Your task to perform on an android device: change the upload size in google photos Image 0: 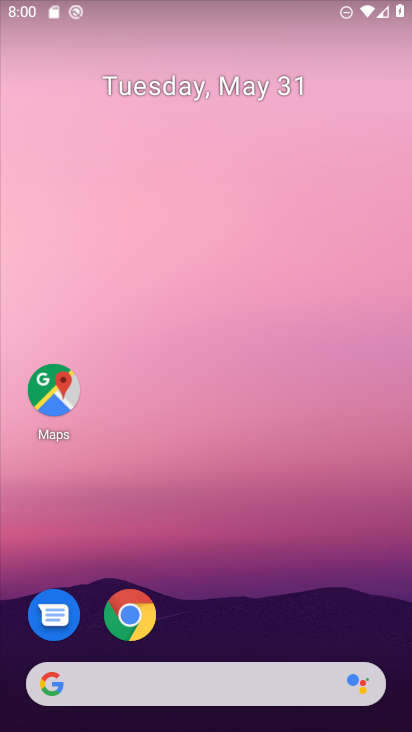
Step 0: drag from (280, 558) to (273, 0)
Your task to perform on an android device: change the upload size in google photos Image 1: 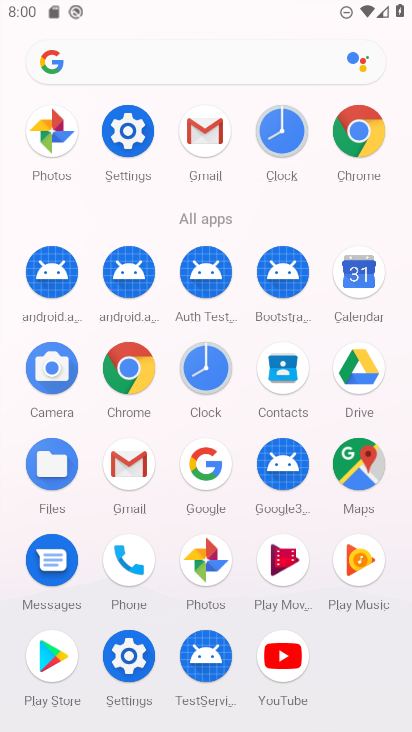
Step 1: click (203, 560)
Your task to perform on an android device: change the upload size in google photos Image 2: 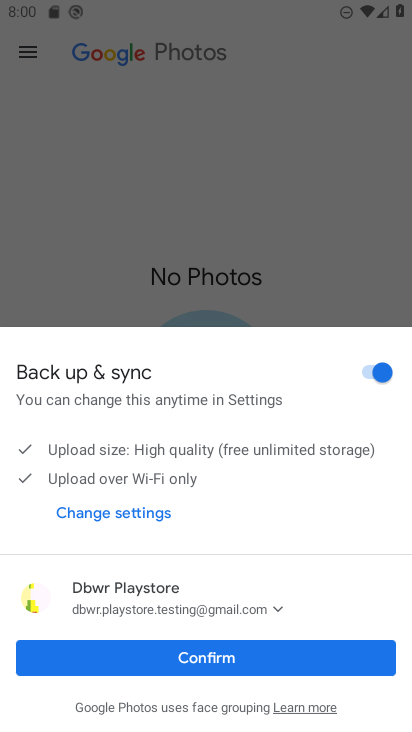
Step 2: click (202, 657)
Your task to perform on an android device: change the upload size in google photos Image 3: 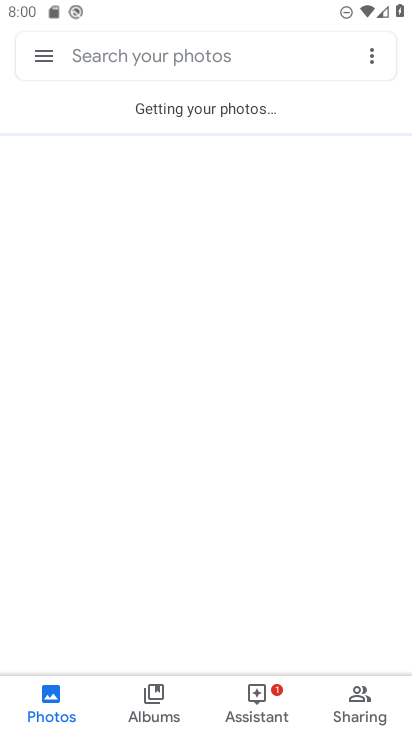
Step 3: click (50, 48)
Your task to perform on an android device: change the upload size in google photos Image 4: 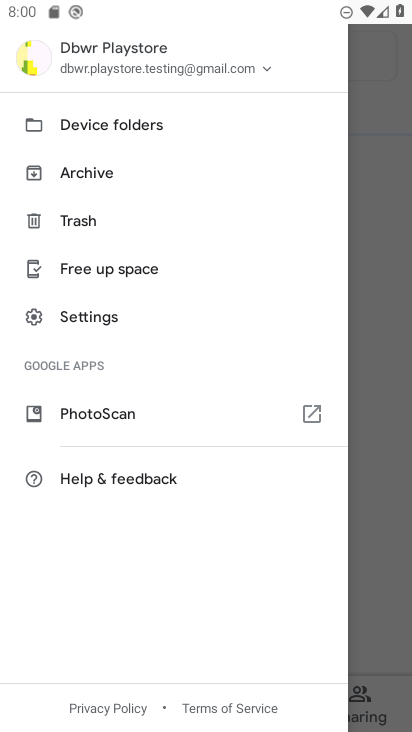
Step 4: click (105, 321)
Your task to perform on an android device: change the upload size in google photos Image 5: 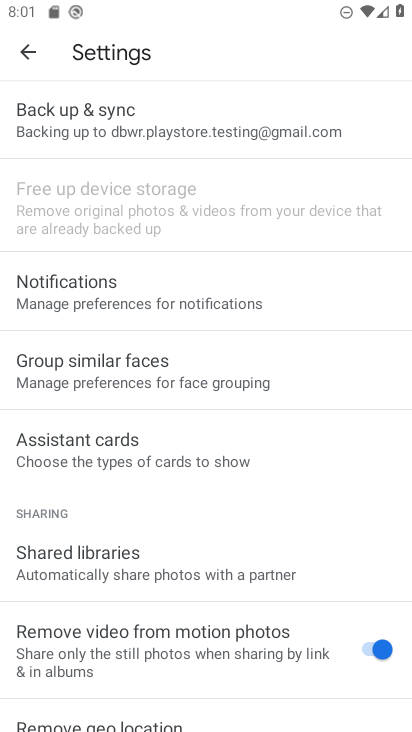
Step 5: click (96, 120)
Your task to perform on an android device: change the upload size in google photos Image 6: 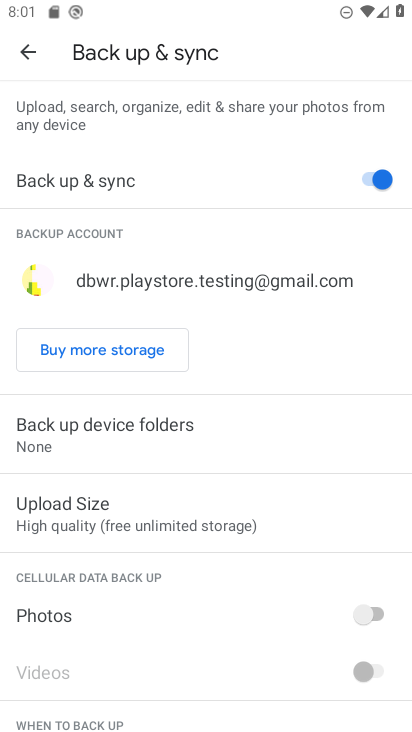
Step 6: click (191, 515)
Your task to perform on an android device: change the upload size in google photos Image 7: 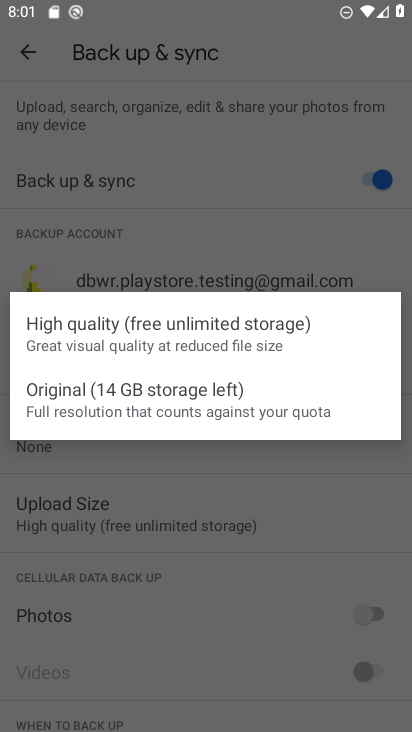
Step 7: click (156, 404)
Your task to perform on an android device: change the upload size in google photos Image 8: 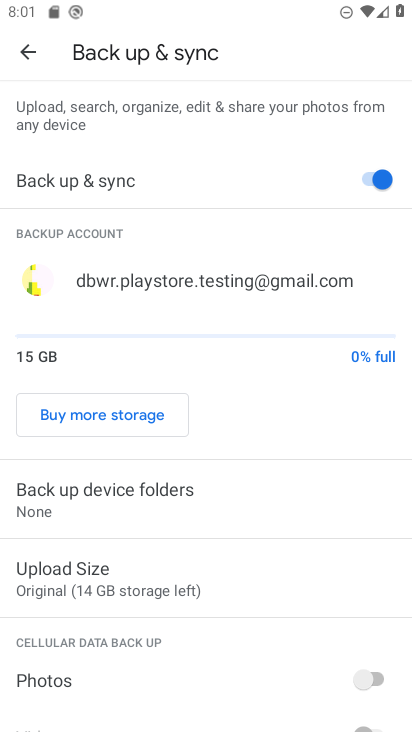
Step 8: task complete